Your task to perform on an android device: open chrome privacy settings Image 0: 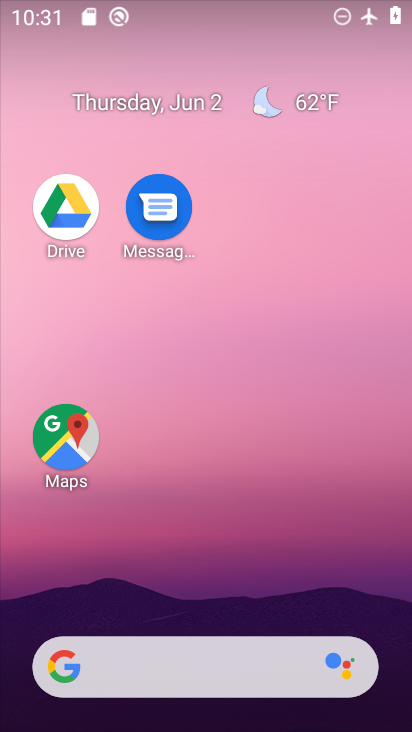
Step 0: drag from (195, 615) to (243, 49)
Your task to perform on an android device: open chrome privacy settings Image 1: 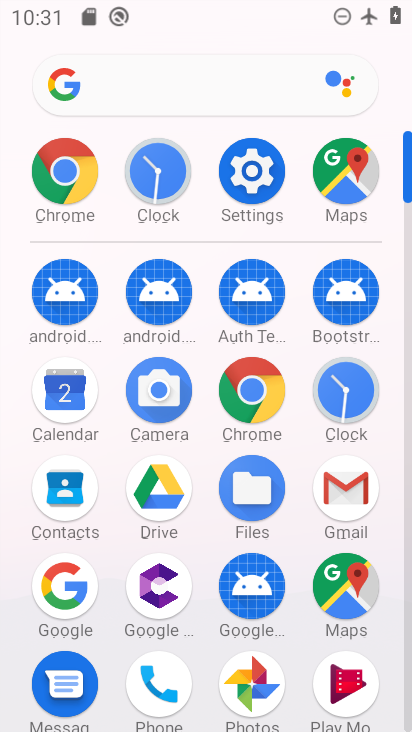
Step 1: click (252, 416)
Your task to perform on an android device: open chrome privacy settings Image 2: 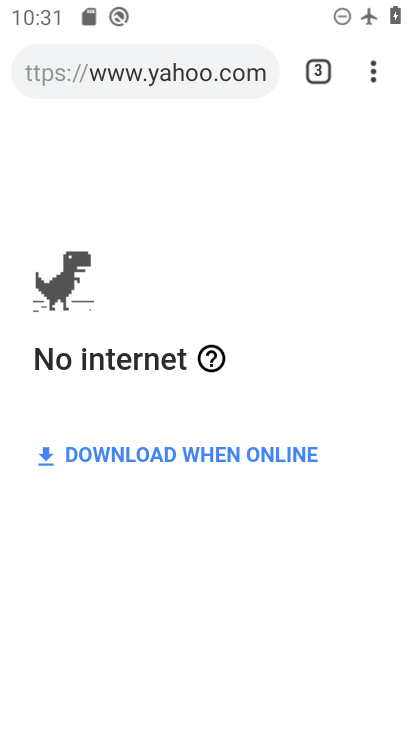
Step 2: click (377, 73)
Your task to perform on an android device: open chrome privacy settings Image 3: 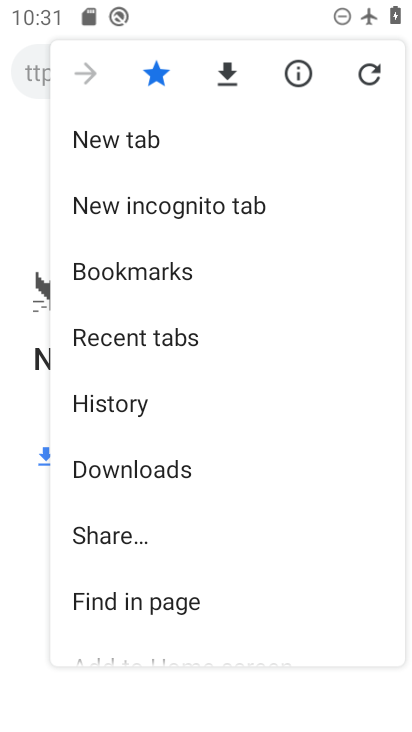
Step 3: drag from (206, 620) to (172, 141)
Your task to perform on an android device: open chrome privacy settings Image 4: 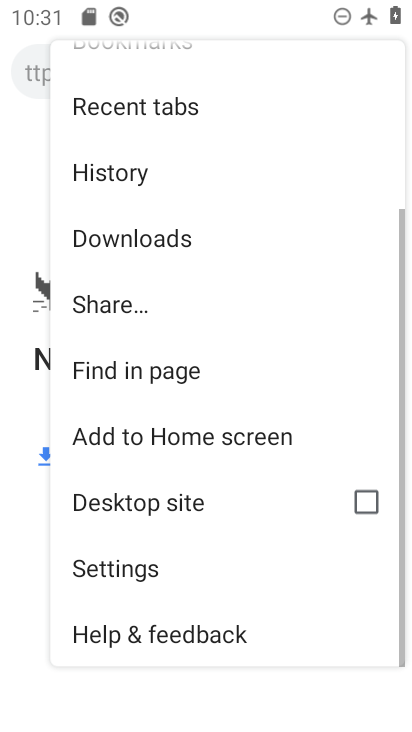
Step 4: click (100, 585)
Your task to perform on an android device: open chrome privacy settings Image 5: 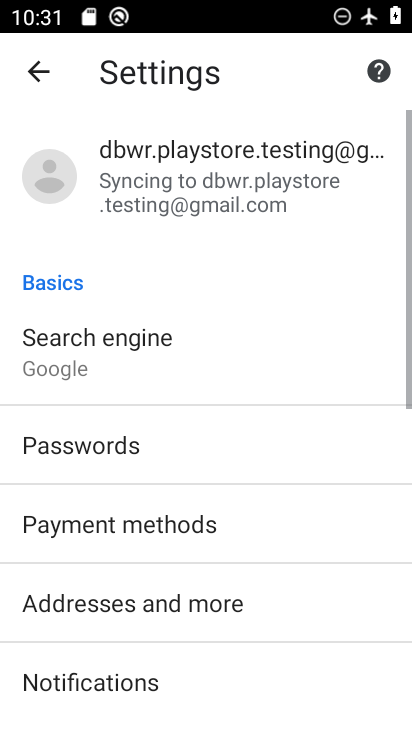
Step 5: drag from (144, 602) to (144, 138)
Your task to perform on an android device: open chrome privacy settings Image 6: 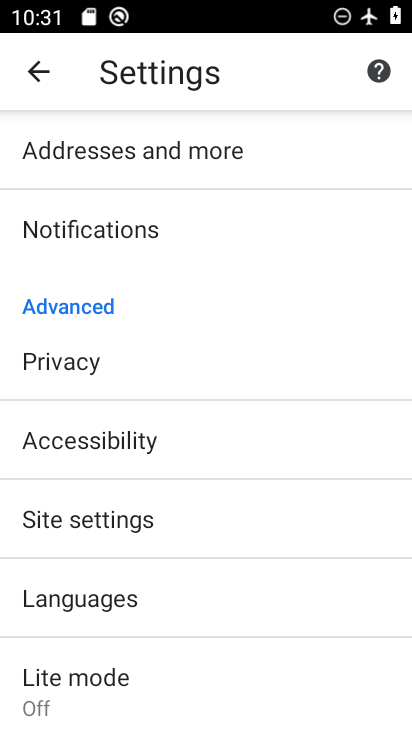
Step 6: click (107, 359)
Your task to perform on an android device: open chrome privacy settings Image 7: 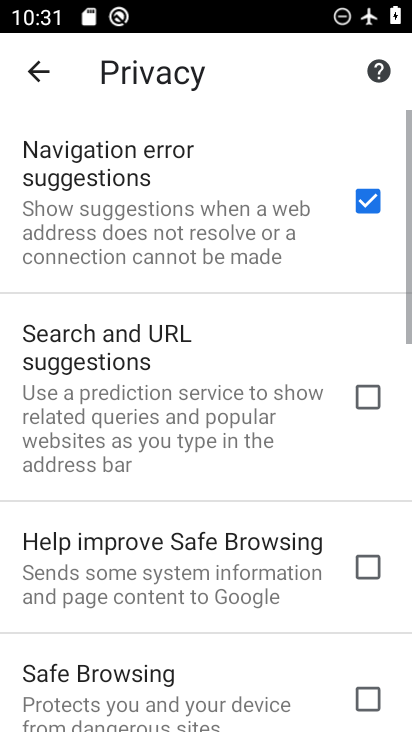
Step 7: task complete